Your task to perform on an android device: turn notification dots off Image 0: 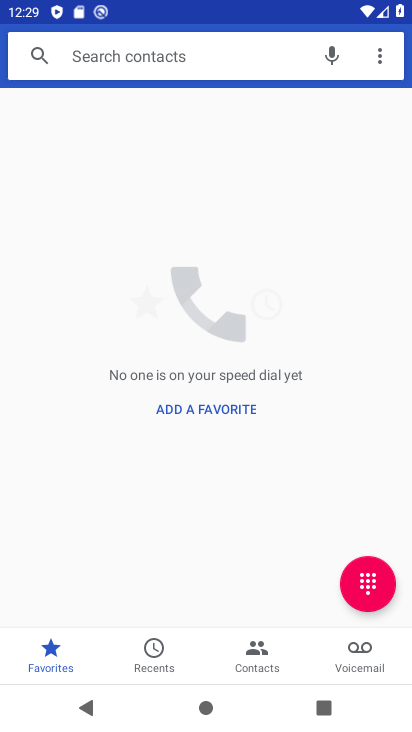
Step 0: press home button
Your task to perform on an android device: turn notification dots off Image 1: 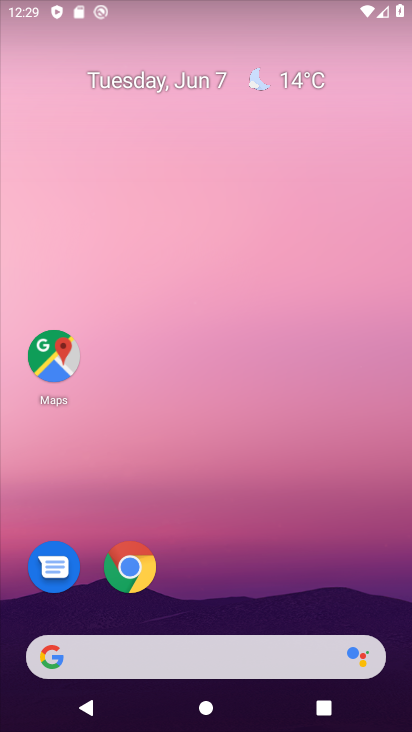
Step 1: drag from (286, 577) to (295, 0)
Your task to perform on an android device: turn notification dots off Image 2: 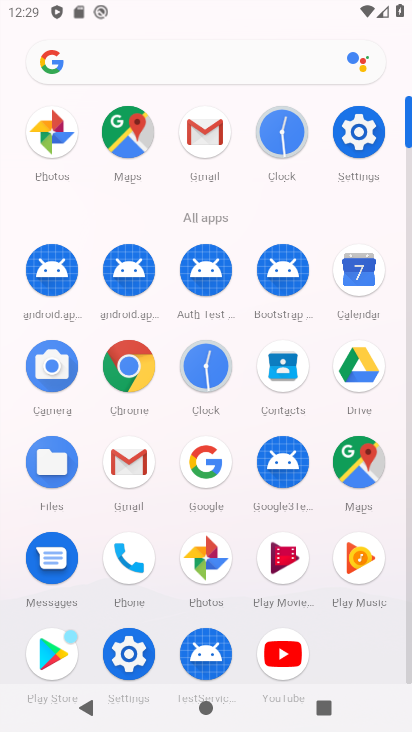
Step 2: click (363, 128)
Your task to perform on an android device: turn notification dots off Image 3: 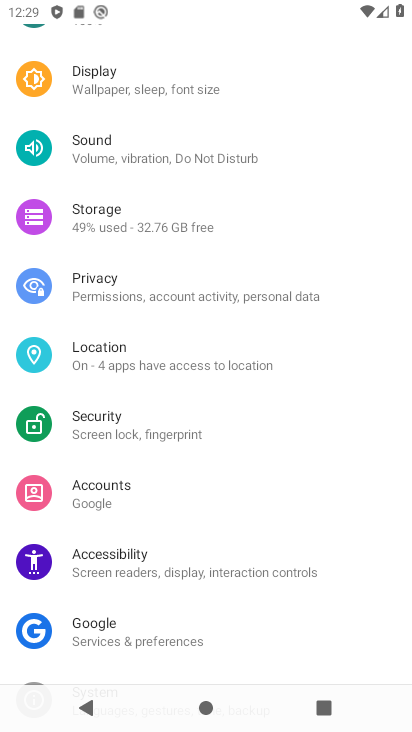
Step 3: drag from (175, 136) to (233, 527)
Your task to perform on an android device: turn notification dots off Image 4: 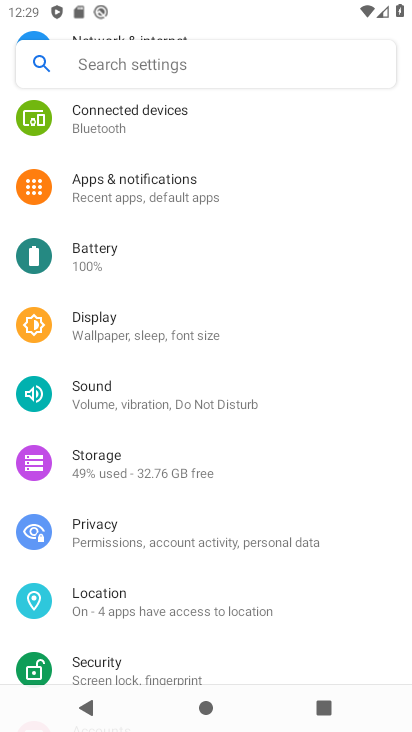
Step 4: click (171, 199)
Your task to perform on an android device: turn notification dots off Image 5: 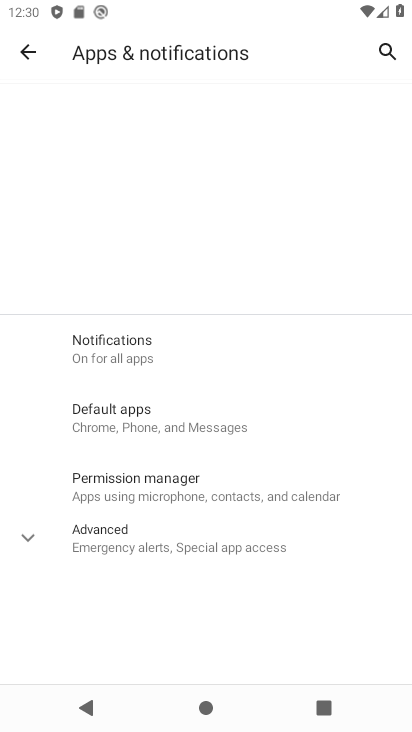
Step 5: click (157, 352)
Your task to perform on an android device: turn notification dots off Image 6: 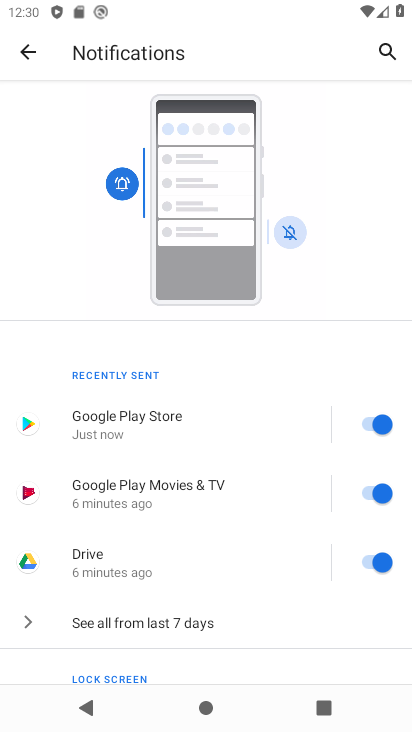
Step 6: drag from (247, 571) to (240, 118)
Your task to perform on an android device: turn notification dots off Image 7: 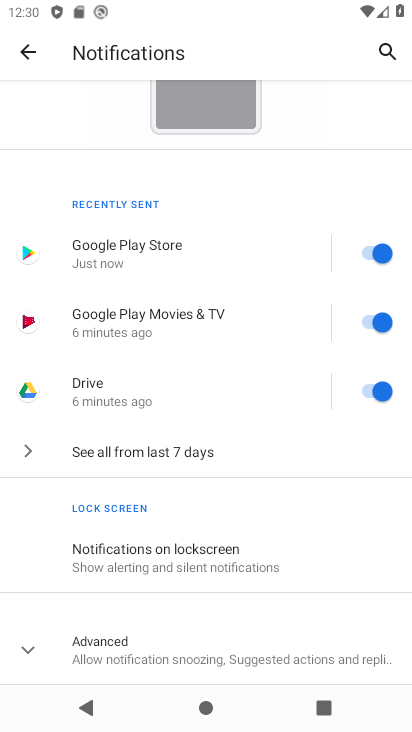
Step 7: click (247, 641)
Your task to perform on an android device: turn notification dots off Image 8: 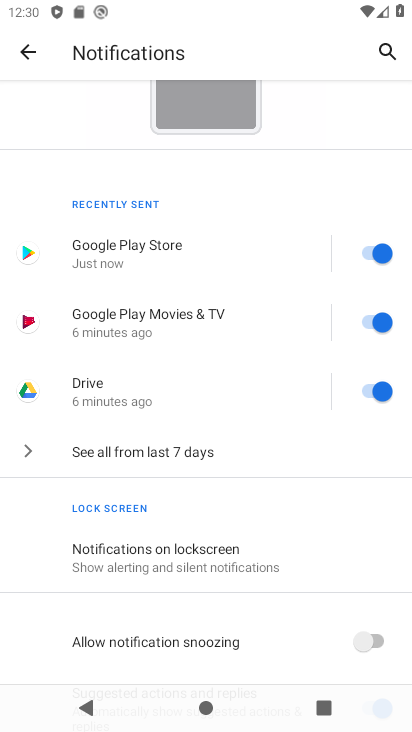
Step 8: drag from (253, 635) to (250, 185)
Your task to perform on an android device: turn notification dots off Image 9: 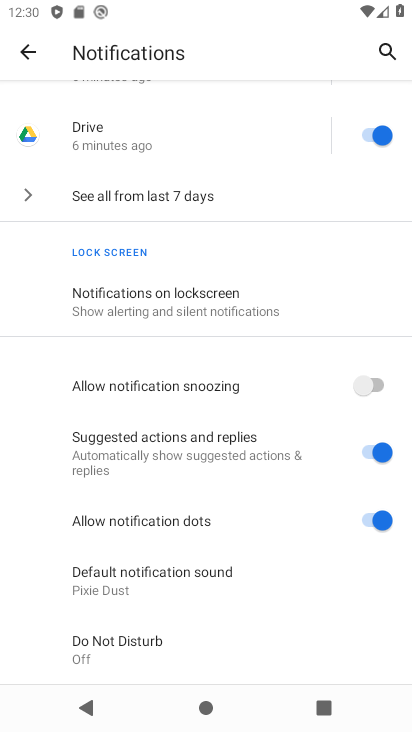
Step 9: click (357, 517)
Your task to perform on an android device: turn notification dots off Image 10: 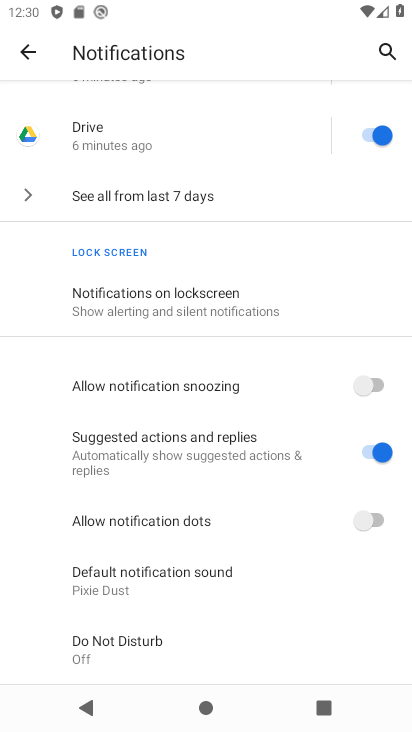
Step 10: task complete